Your task to perform on an android device: open app "Mercado Libre" (install if not already installed) Image 0: 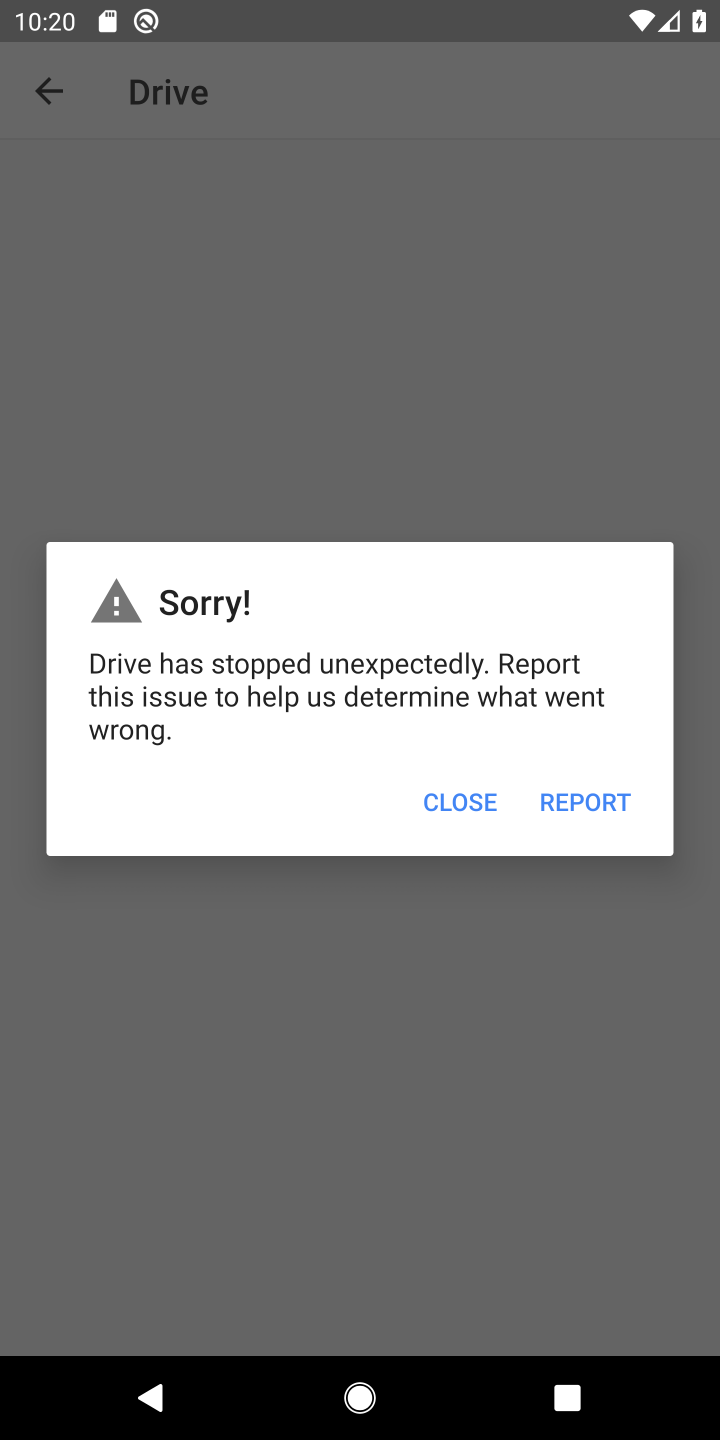
Step 0: press home button
Your task to perform on an android device: open app "Mercado Libre" (install if not already installed) Image 1: 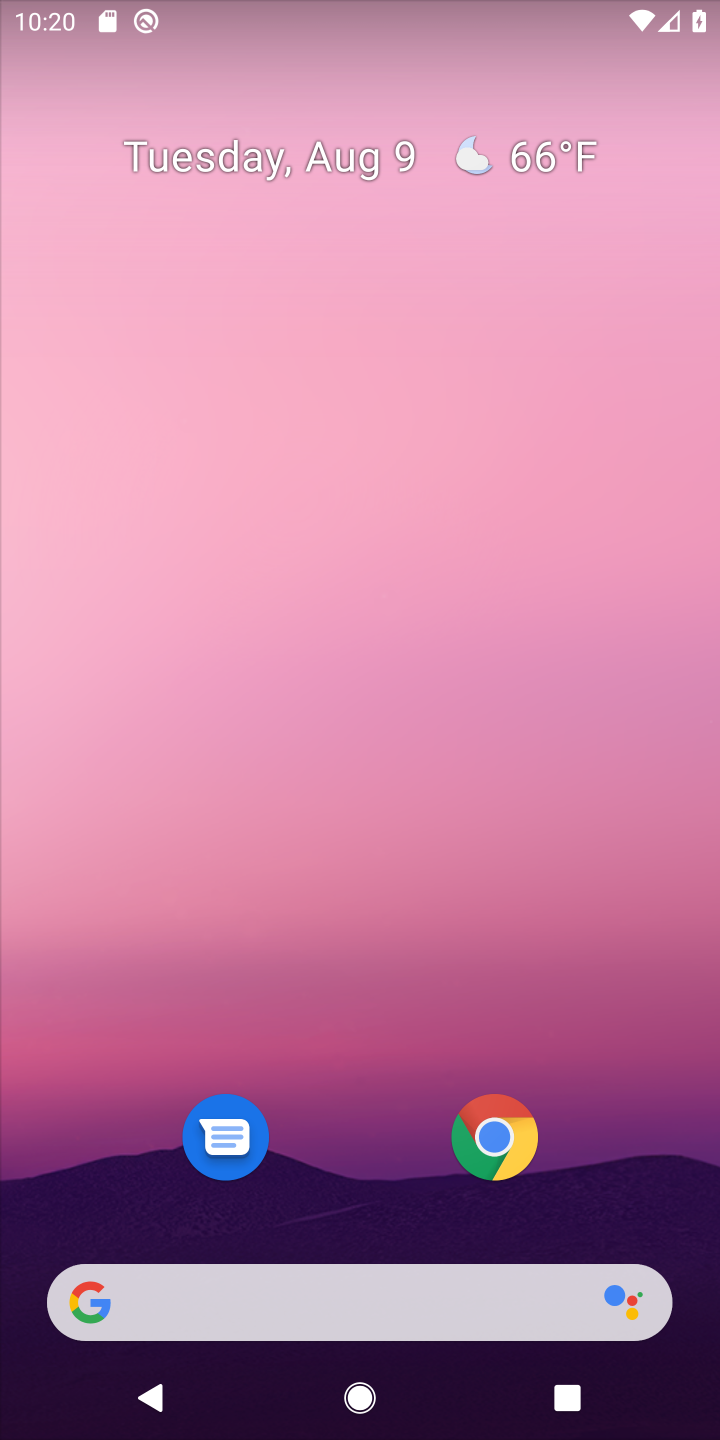
Step 1: drag from (387, 917) to (419, 298)
Your task to perform on an android device: open app "Mercado Libre" (install if not already installed) Image 2: 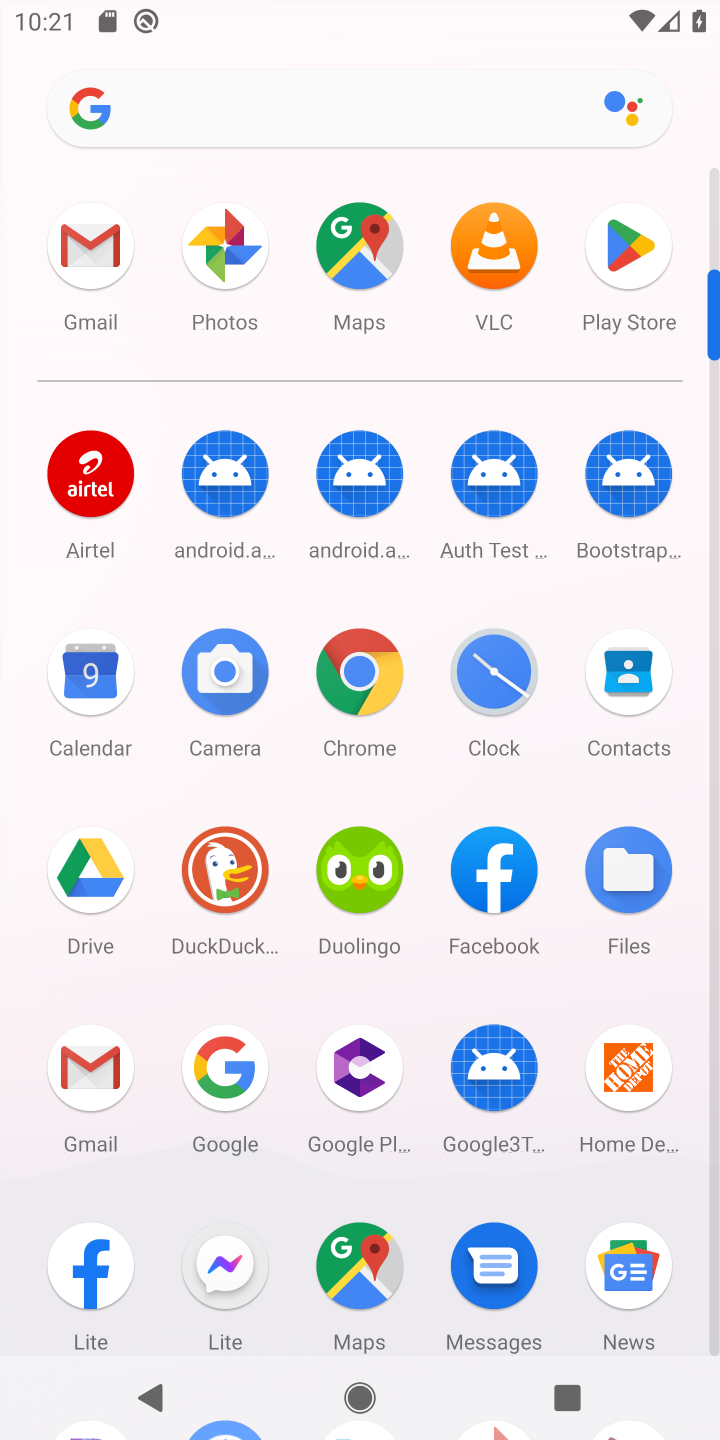
Step 2: click (591, 241)
Your task to perform on an android device: open app "Mercado Libre" (install if not already installed) Image 3: 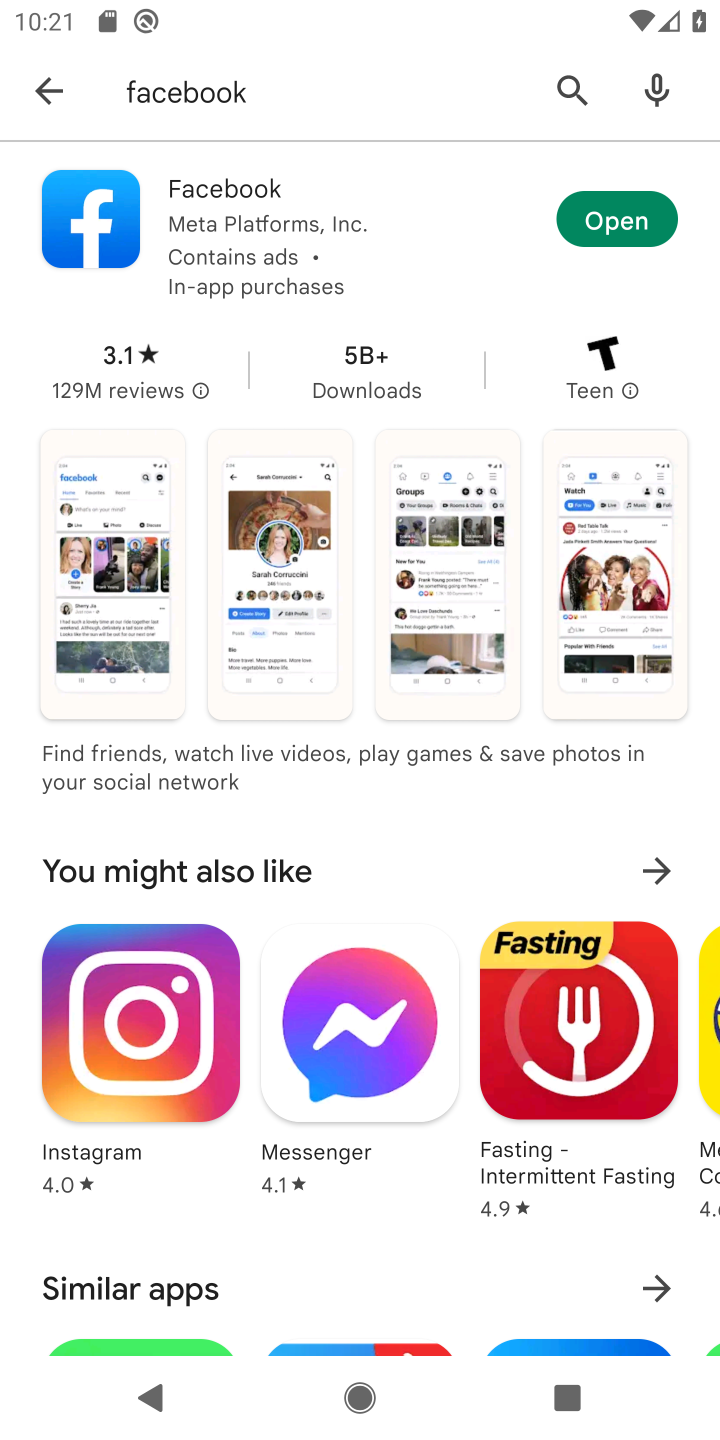
Step 3: click (580, 84)
Your task to perform on an android device: open app "Mercado Libre" (install if not already installed) Image 4: 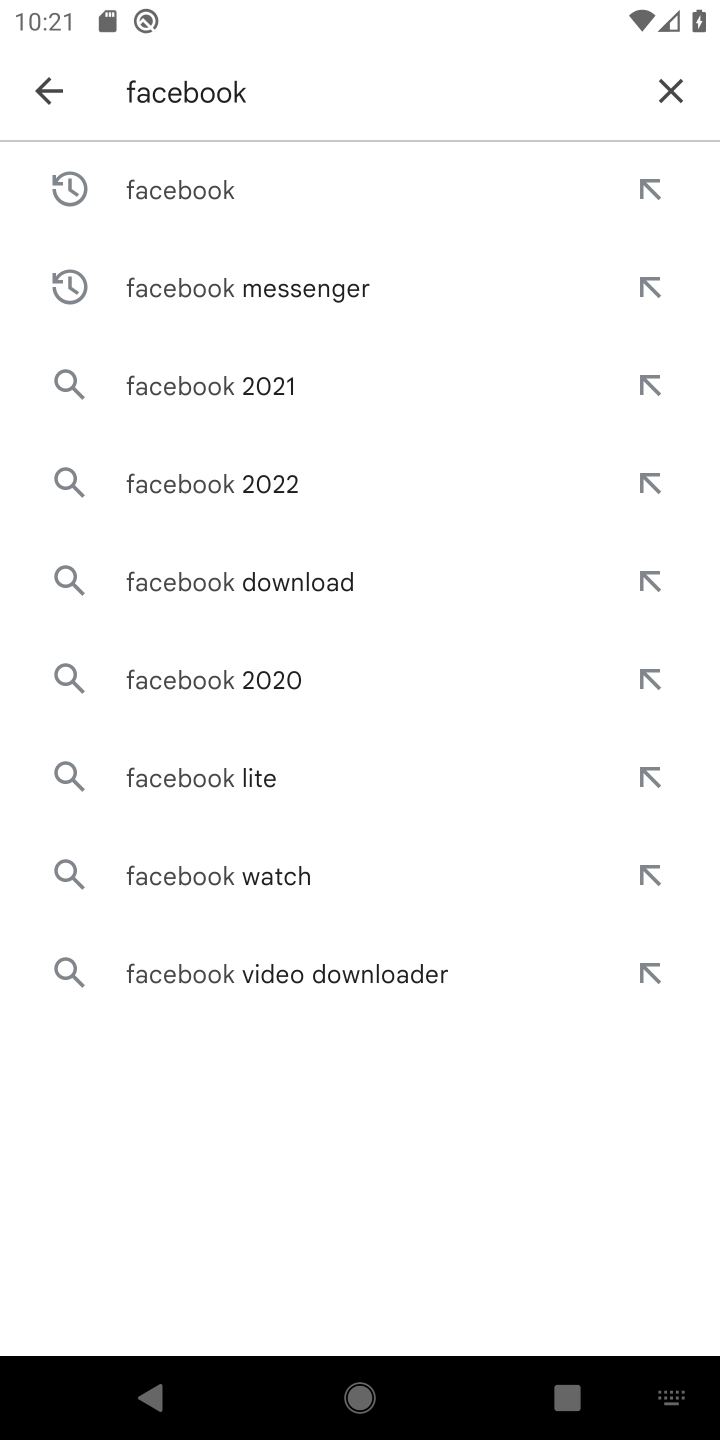
Step 4: click (672, 89)
Your task to perform on an android device: open app "Mercado Libre" (install if not already installed) Image 5: 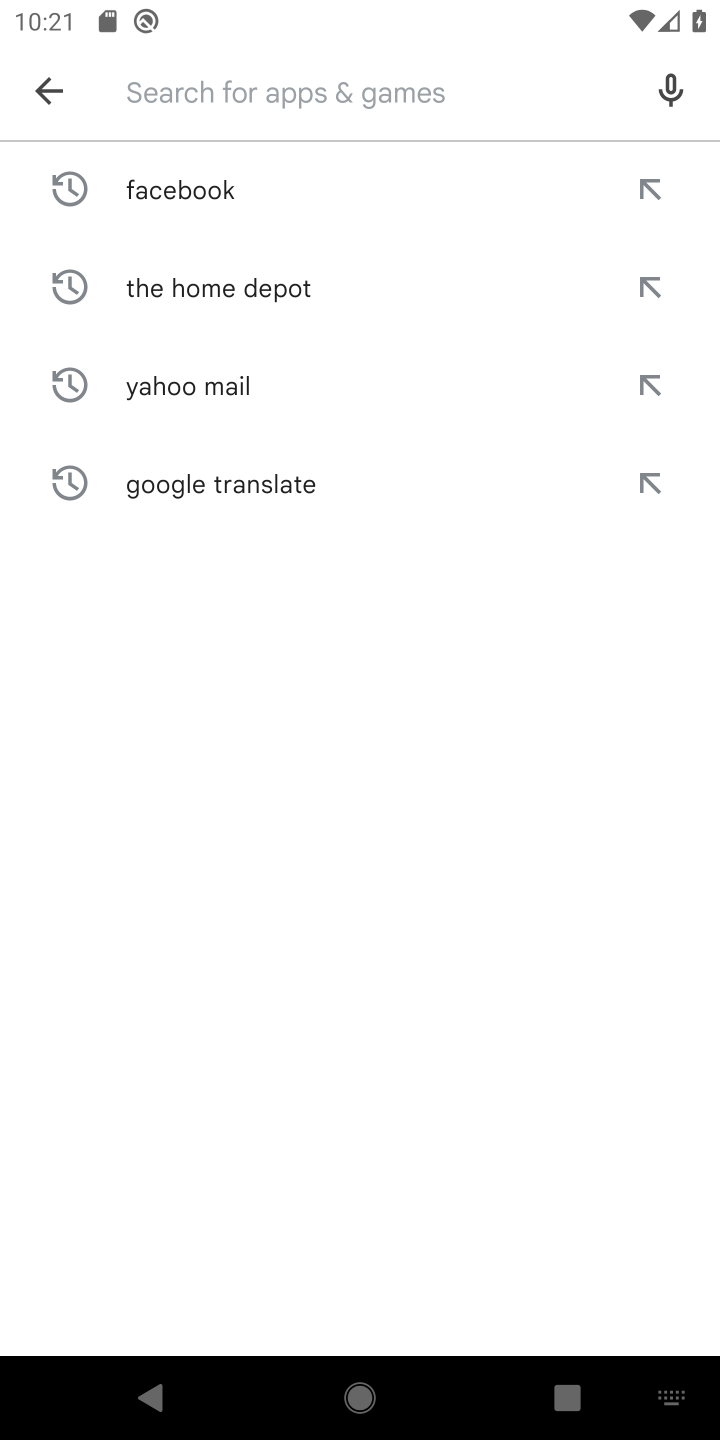
Step 5: type "Mercado Libre"
Your task to perform on an android device: open app "Mercado Libre" (install if not already installed) Image 6: 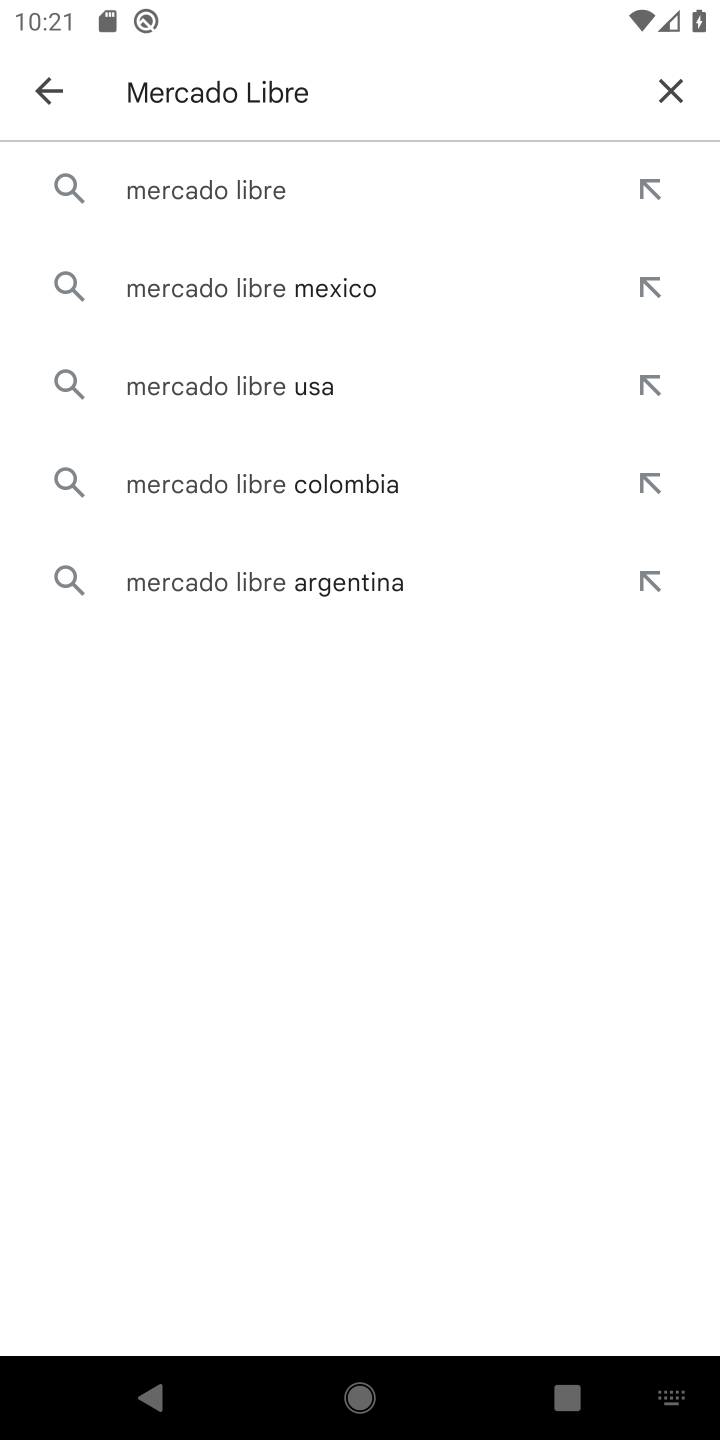
Step 6: click (352, 185)
Your task to perform on an android device: open app "Mercado Libre" (install if not already installed) Image 7: 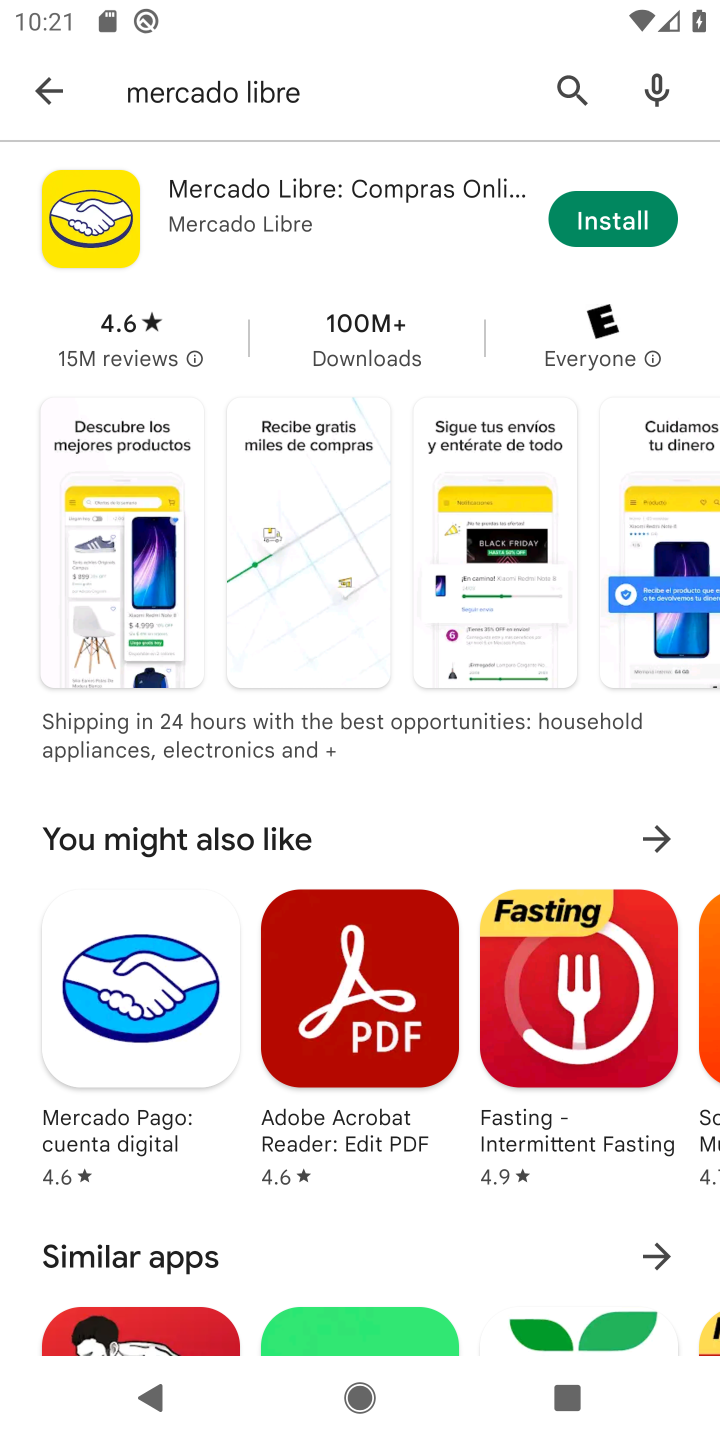
Step 7: click (596, 212)
Your task to perform on an android device: open app "Mercado Libre" (install if not already installed) Image 8: 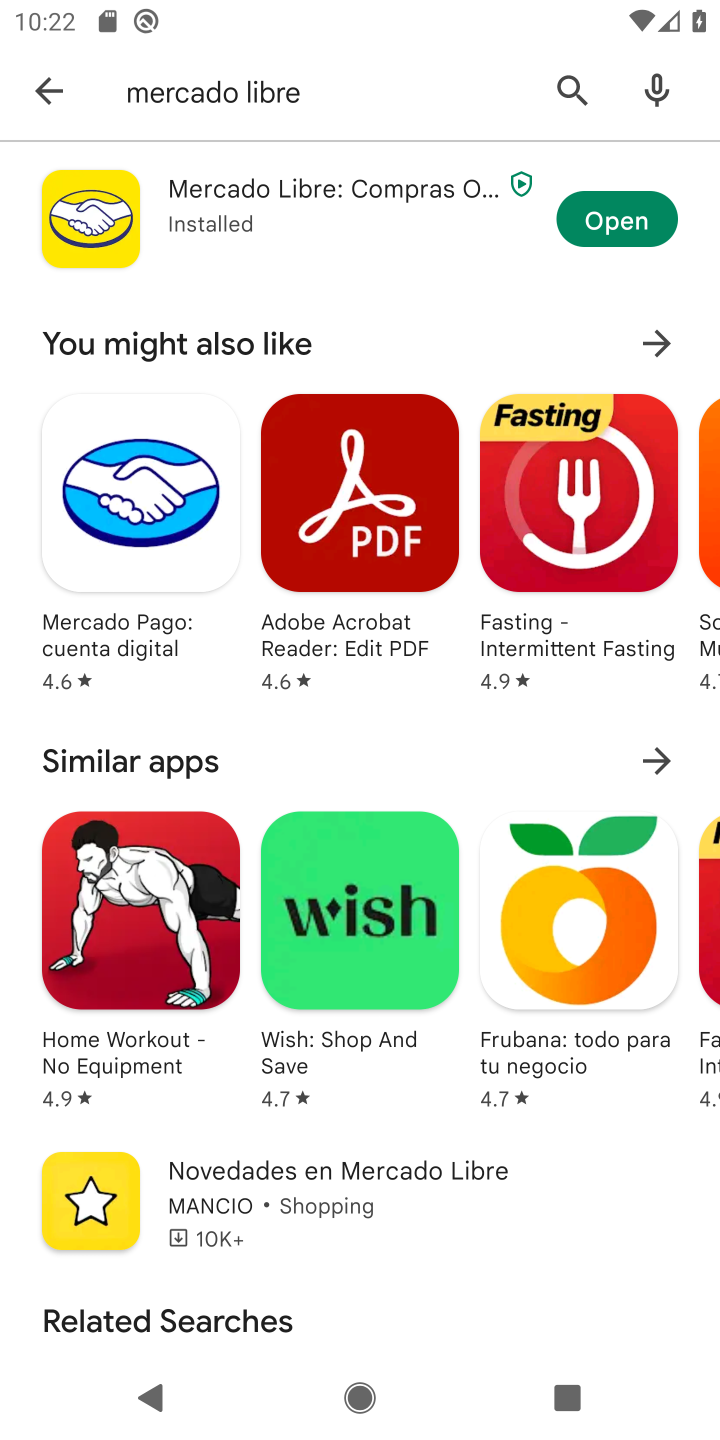
Step 8: click (613, 222)
Your task to perform on an android device: open app "Mercado Libre" (install if not already installed) Image 9: 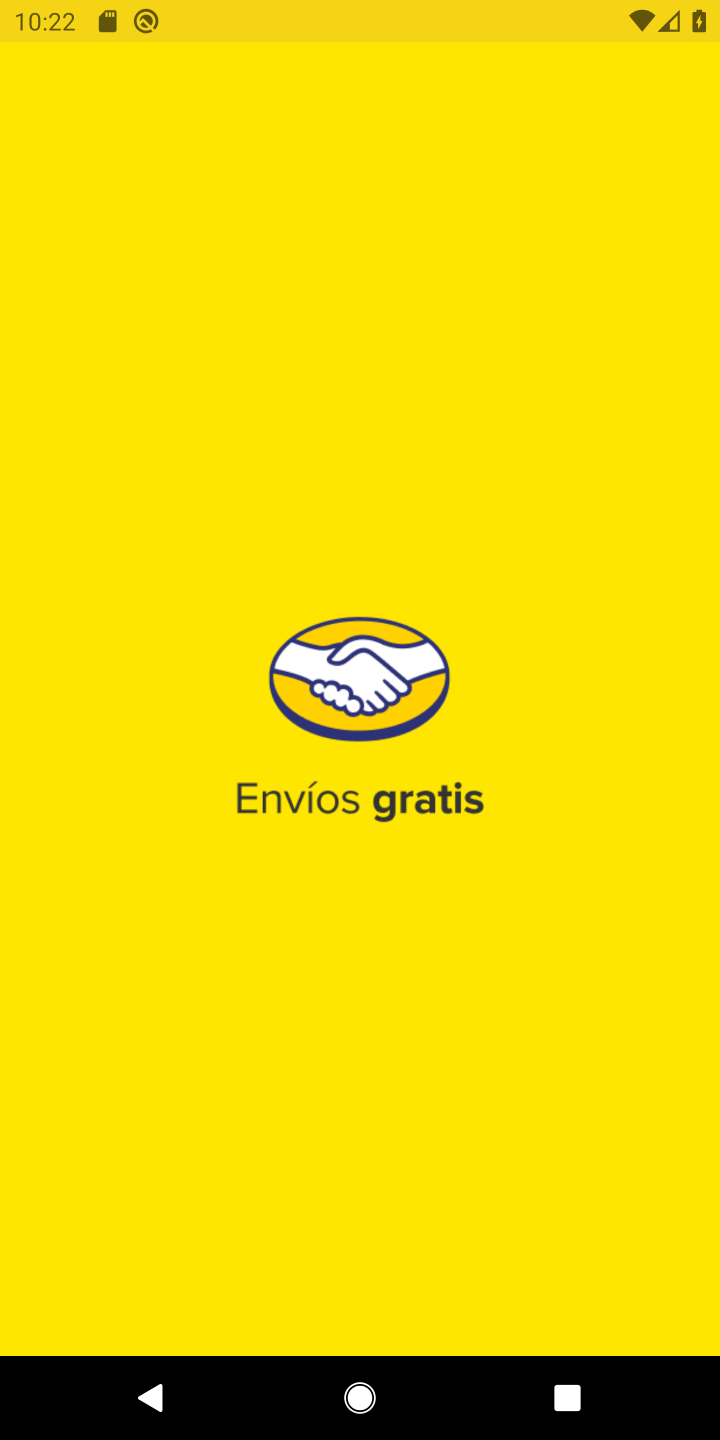
Step 9: task complete